Your task to perform on an android device: Open accessibility settings Image 0: 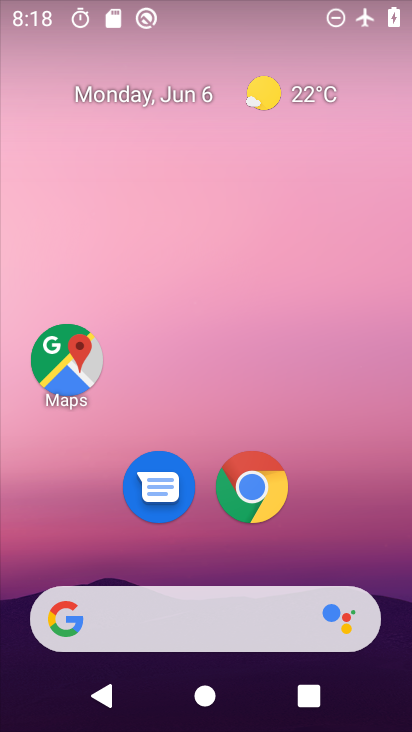
Step 0: drag from (401, 627) to (285, 55)
Your task to perform on an android device: Open accessibility settings Image 1: 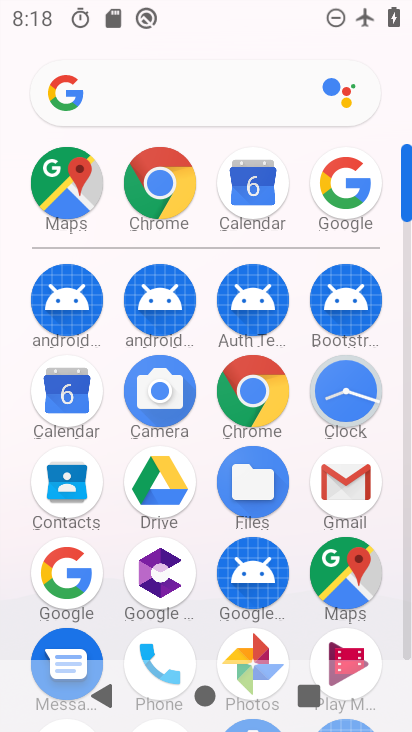
Step 1: drag from (203, 622) to (211, 87)
Your task to perform on an android device: Open accessibility settings Image 2: 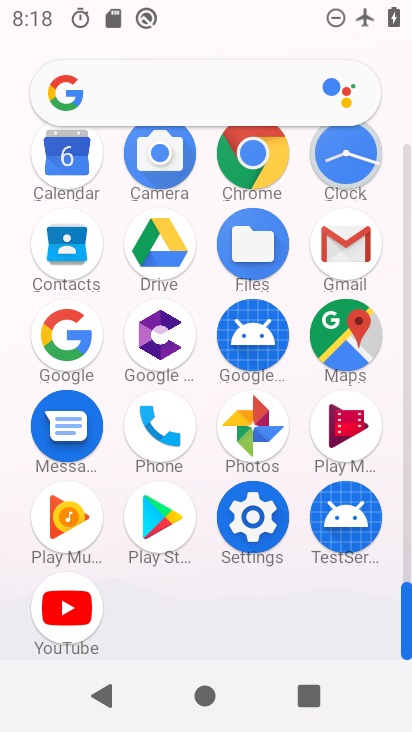
Step 2: click (290, 534)
Your task to perform on an android device: Open accessibility settings Image 3: 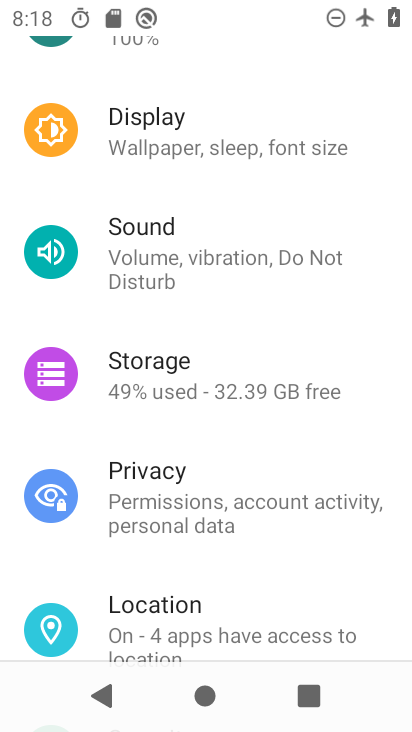
Step 3: drag from (145, 579) to (196, 113)
Your task to perform on an android device: Open accessibility settings Image 4: 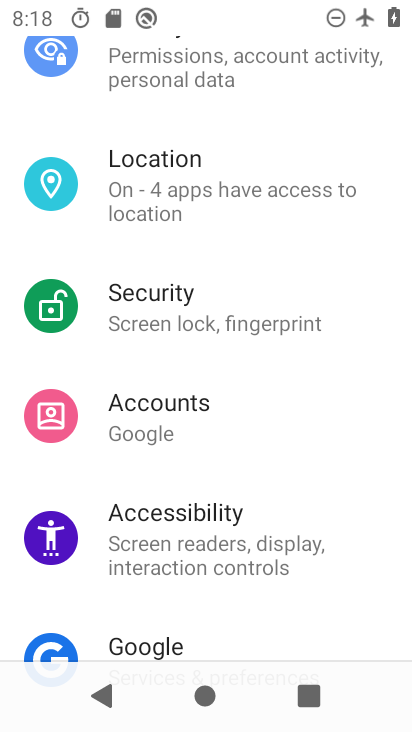
Step 4: click (233, 531)
Your task to perform on an android device: Open accessibility settings Image 5: 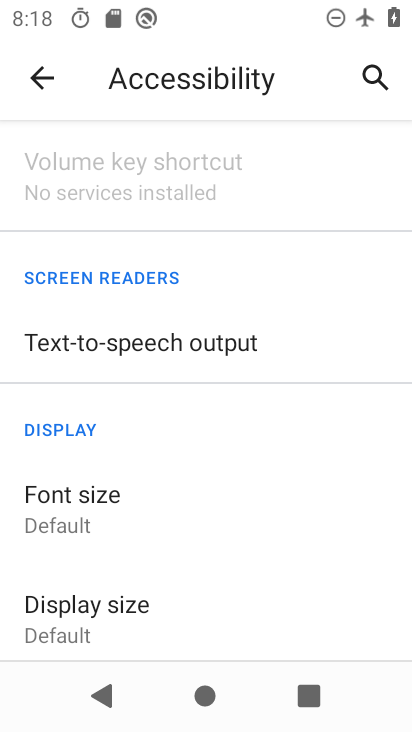
Step 5: task complete